Your task to perform on an android device: toggle improve location accuracy Image 0: 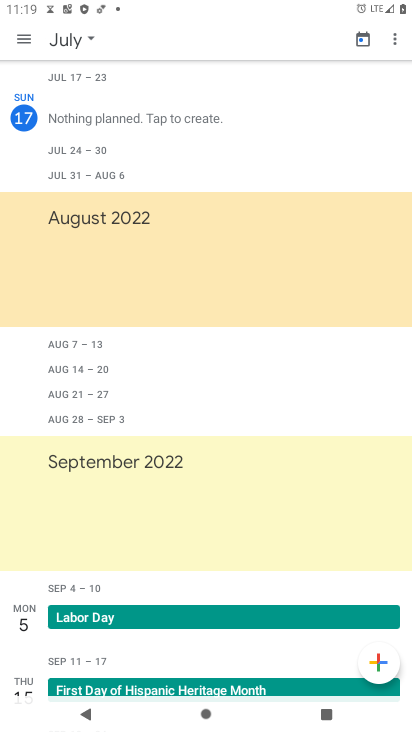
Step 0: press home button
Your task to perform on an android device: toggle improve location accuracy Image 1: 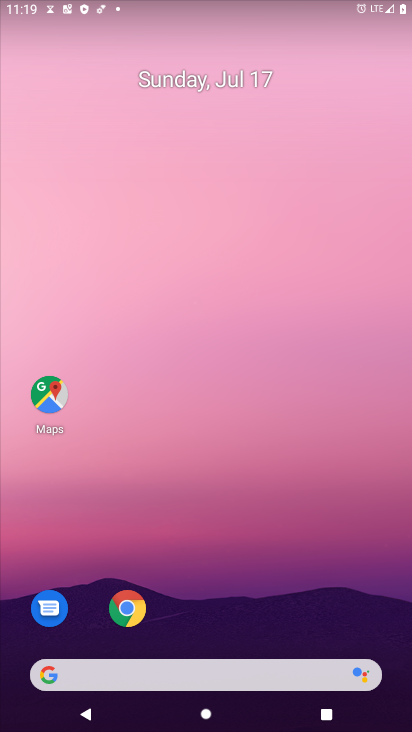
Step 1: drag from (207, 644) to (230, 3)
Your task to perform on an android device: toggle improve location accuracy Image 2: 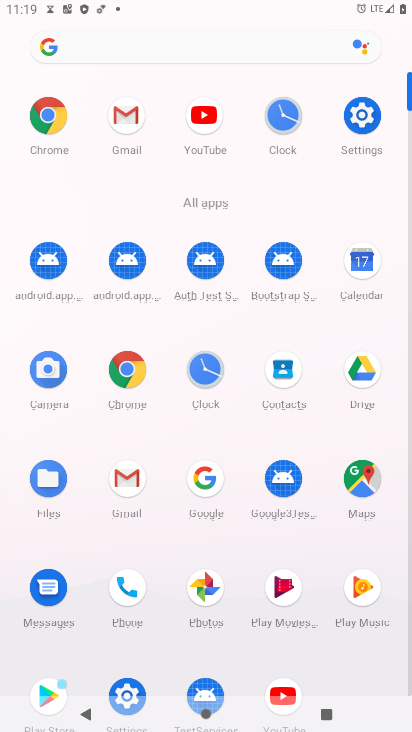
Step 2: click (365, 114)
Your task to perform on an android device: toggle improve location accuracy Image 3: 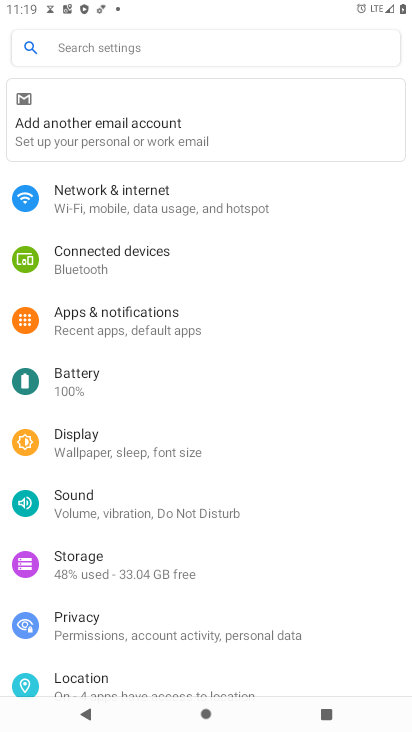
Step 3: click (78, 675)
Your task to perform on an android device: toggle improve location accuracy Image 4: 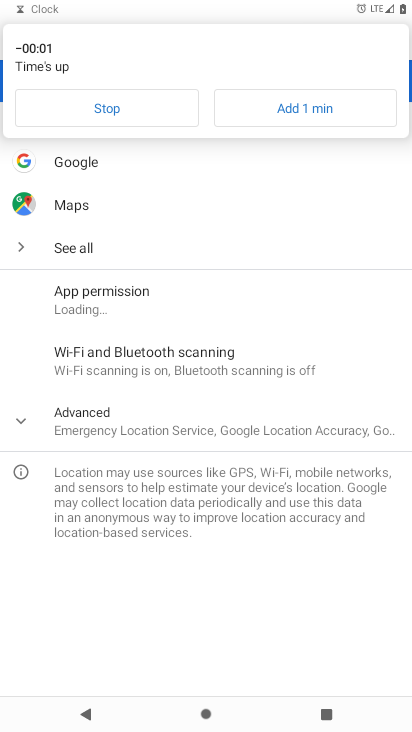
Step 4: click (85, 423)
Your task to perform on an android device: toggle improve location accuracy Image 5: 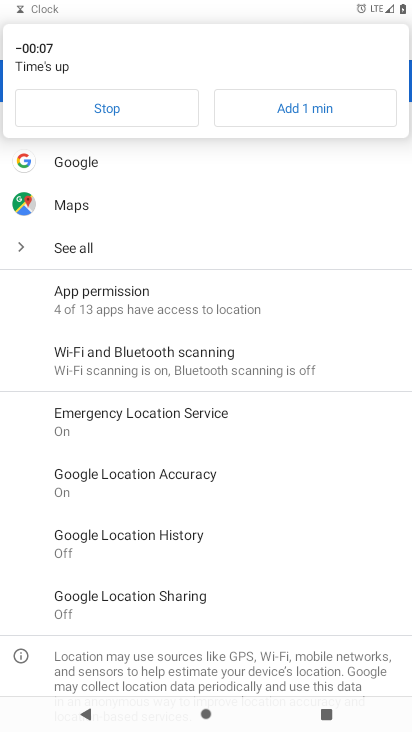
Step 5: click (57, 474)
Your task to perform on an android device: toggle improve location accuracy Image 6: 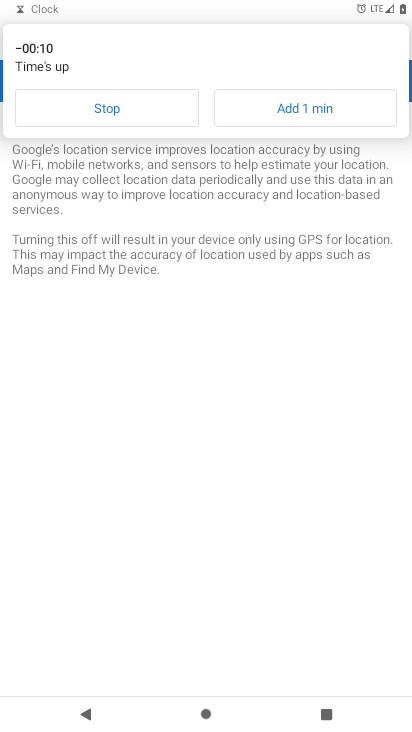
Step 6: click (139, 104)
Your task to perform on an android device: toggle improve location accuracy Image 7: 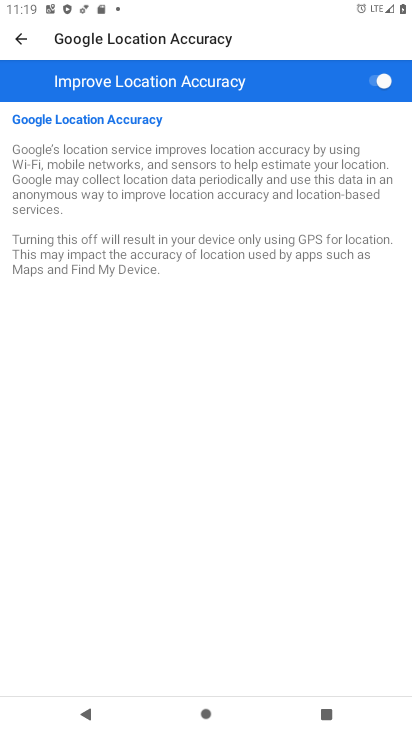
Step 7: click (386, 76)
Your task to perform on an android device: toggle improve location accuracy Image 8: 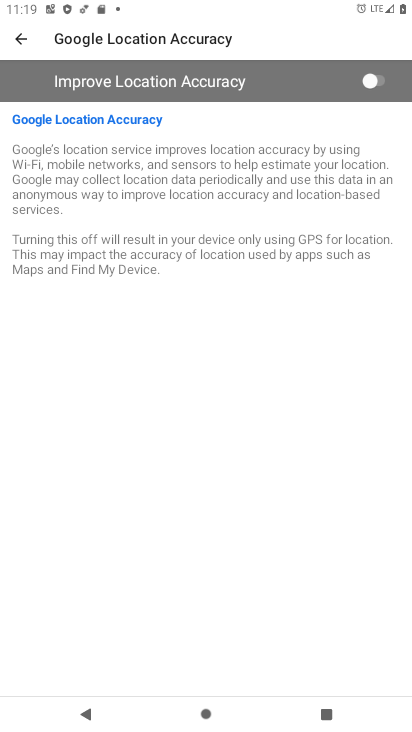
Step 8: task complete